Your task to perform on an android device: remove spam from my inbox in the gmail app Image 0: 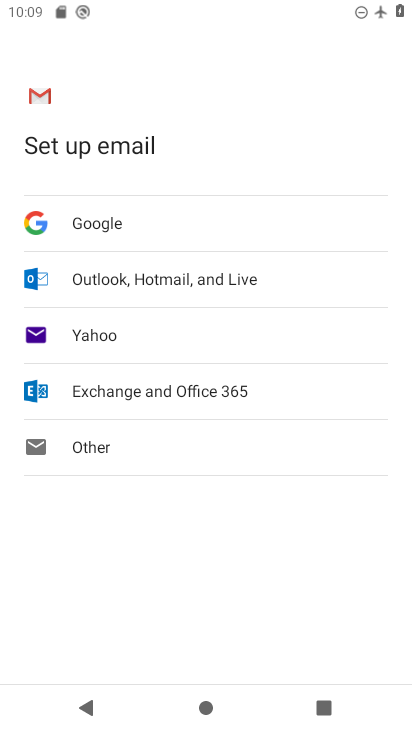
Step 0: drag from (224, 565) to (320, 72)
Your task to perform on an android device: remove spam from my inbox in the gmail app Image 1: 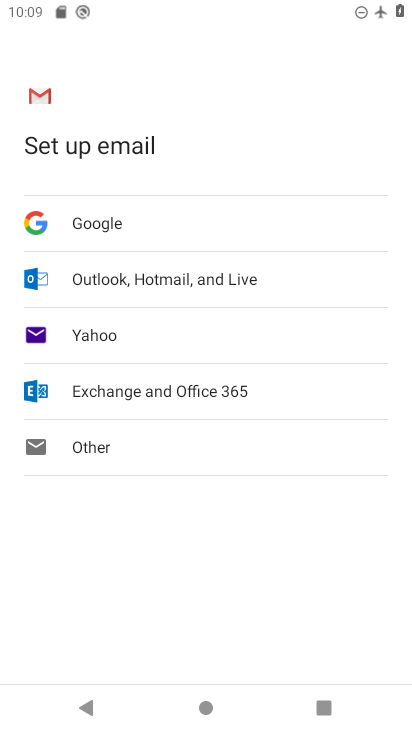
Step 1: click (192, 559)
Your task to perform on an android device: remove spam from my inbox in the gmail app Image 2: 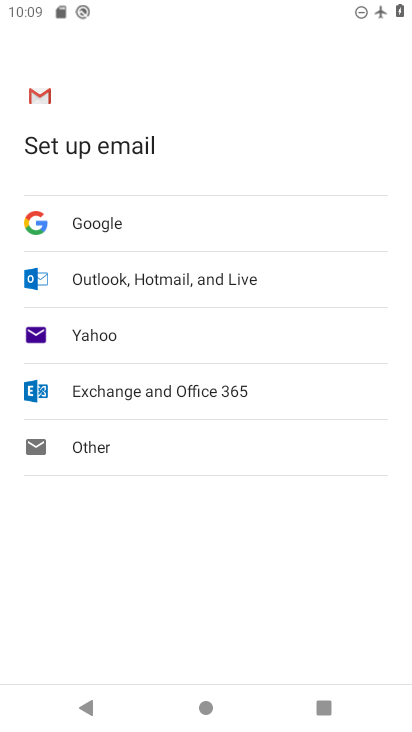
Step 2: press home button
Your task to perform on an android device: remove spam from my inbox in the gmail app Image 3: 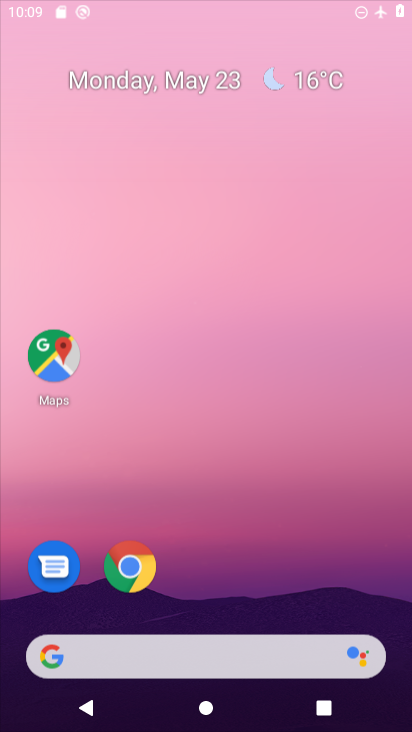
Step 3: drag from (196, 614) to (261, 128)
Your task to perform on an android device: remove spam from my inbox in the gmail app Image 4: 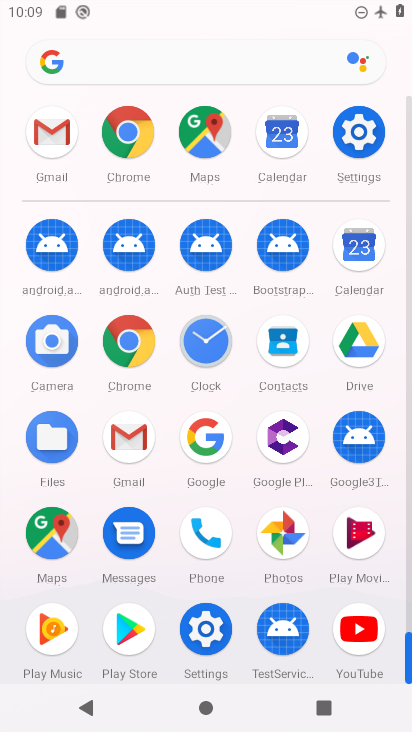
Step 4: click (124, 448)
Your task to perform on an android device: remove spam from my inbox in the gmail app Image 5: 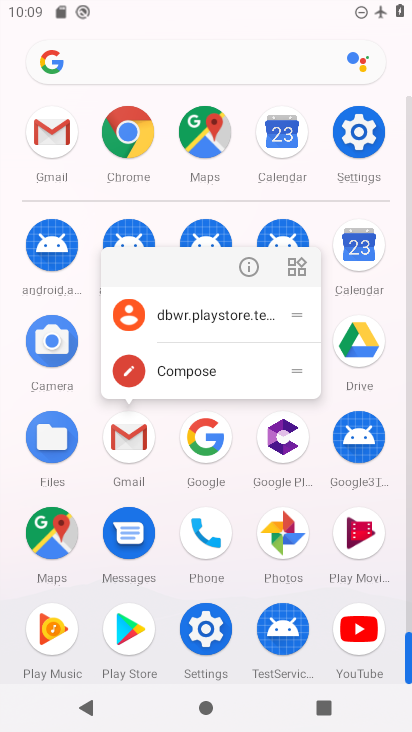
Step 5: click (245, 274)
Your task to perform on an android device: remove spam from my inbox in the gmail app Image 6: 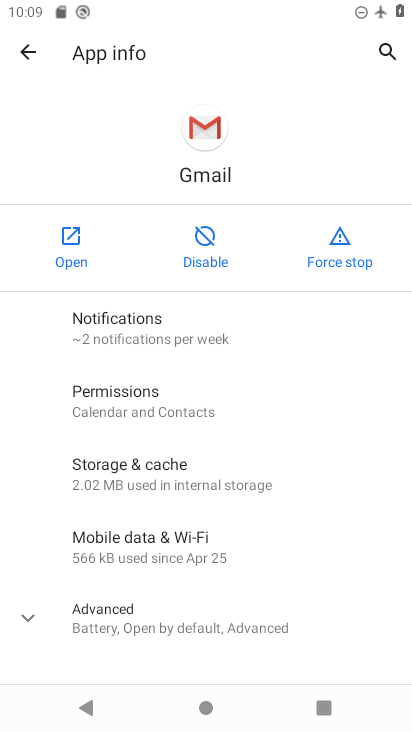
Step 6: click (78, 248)
Your task to perform on an android device: remove spam from my inbox in the gmail app Image 7: 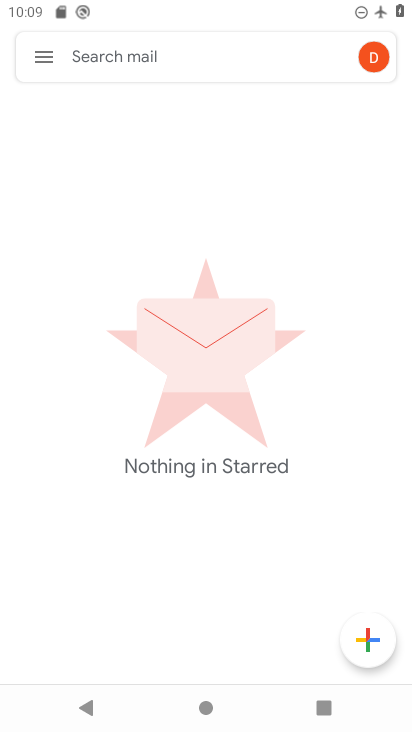
Step 7: click (53, 64)
Your task to perform on an android device: remove spam from my inbox in the gmail app Image 8: 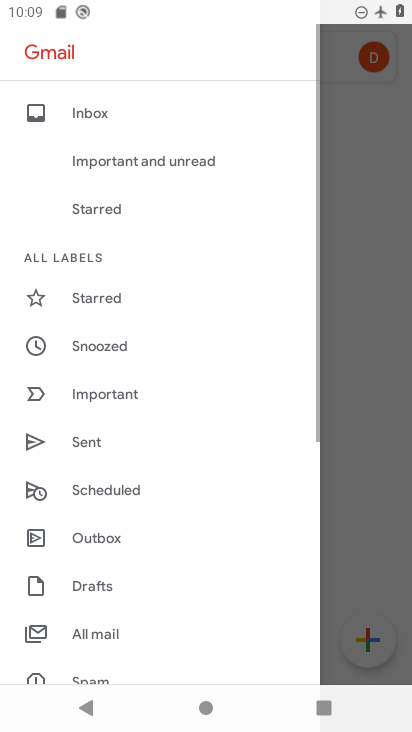
Step 8: drag from (131, 644) to (238, 235)
Your task to perform on an android device: remove spam from my inbox in the gmail app Image 9: 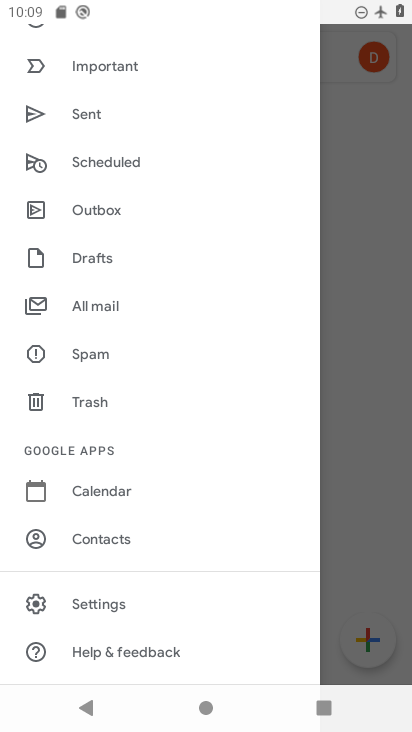
Step 9: click (115, 357)
Your task to perform on an android device: remove spam from my inbox in the gmail app Image 10: 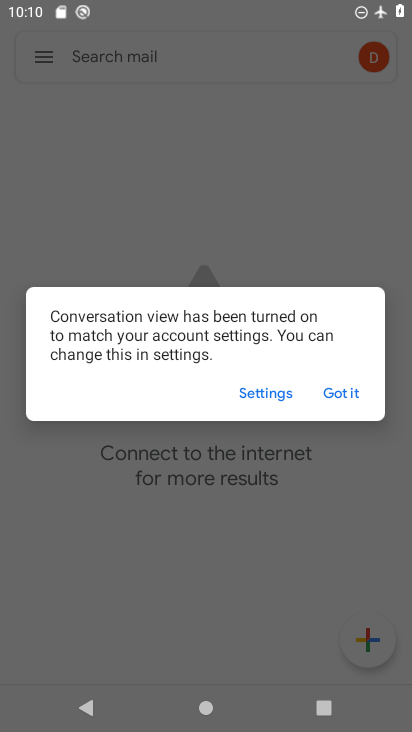
Step 10: click (357, 397)
Your task to perform on an android device: remove spam from my inbox in the gmail app Image 11: 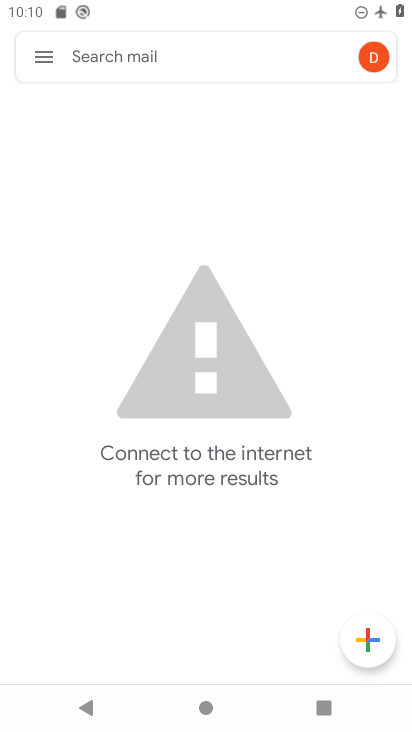
Step 11: click (67, 59)
Your task to perform on an android device: remove spam from my inbox in the gmail app Image 12: 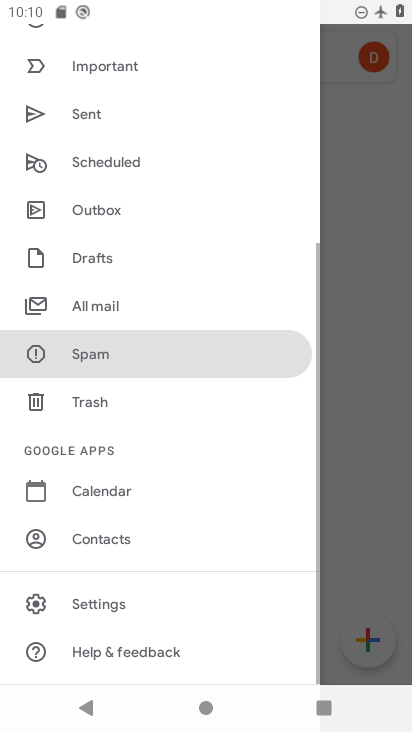
Step 12: click (120, 344)
Your task to perform on an android device: remove spam from my inbox in the gmail app Image 13: 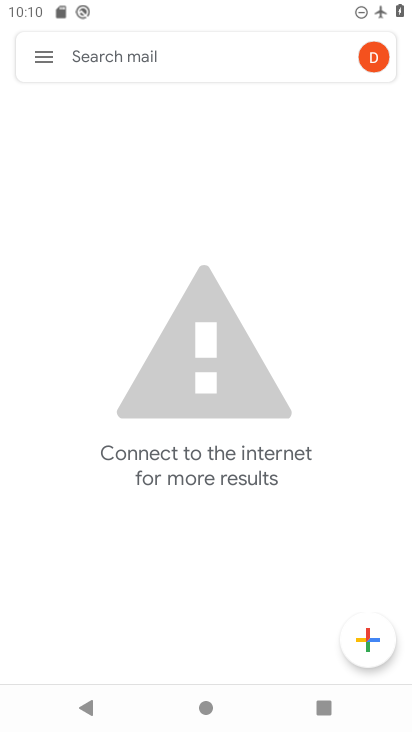
Step 13: task complete